Your task to perform on an android device: Open Google Chrome and open the bookmarks view Image 0: 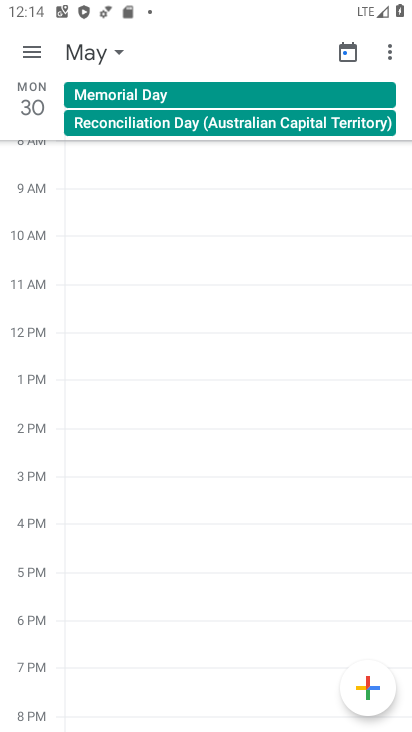
Step 0: press home button
Your task to perform on an android device: Open Google Chrome and open the bookmarks view Image 1: 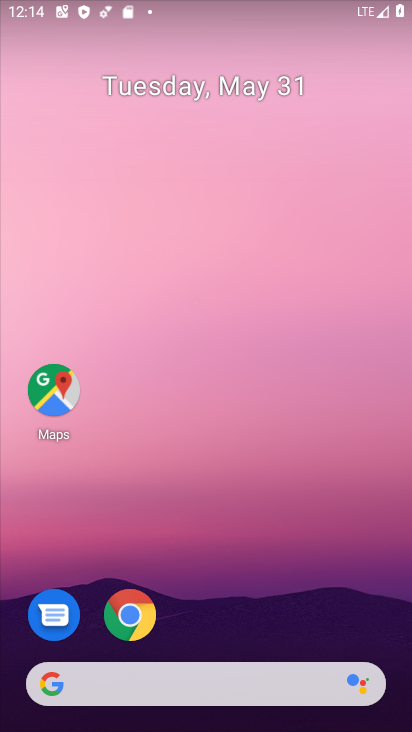
Step 1: click (124, 615)
Your task to perform on an android device: Open Google Chrome and open the bookmarks view Image 2: 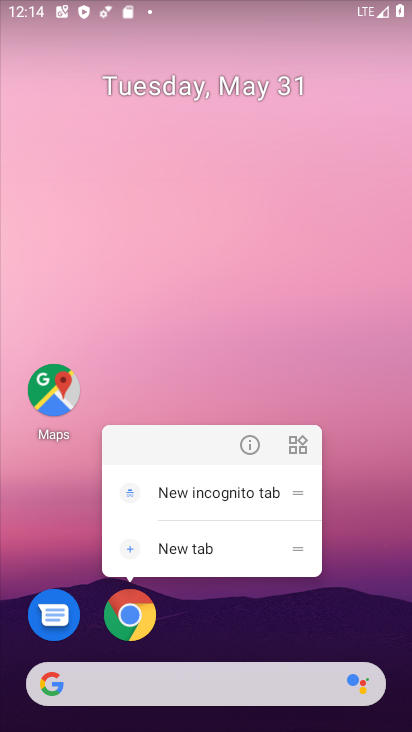
Step 2: click (125, 615)
Your task to perform on an android device: Open Google Chrome and open the bookmarks view Image 3: 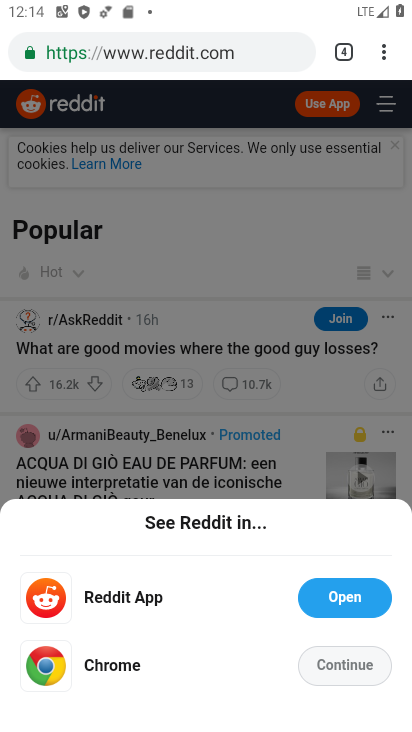
Step 3: click (385, 55)
Your task to perform on an android device: Open Google Chrome and open the bookmarks view Image 4: 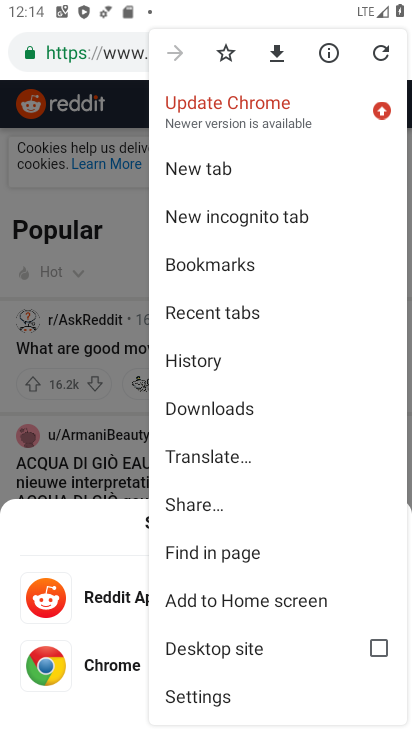
Step 4: click (216, 260)
Your task to perform on an android device: Open Google Chrome and open the bookmarks view Image 5: 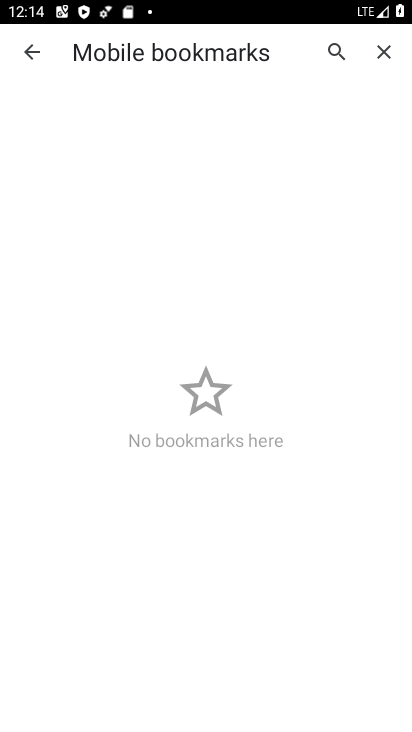
Step 5: task complete